Your task to perform on an android device: Open CNN.com Image 0: 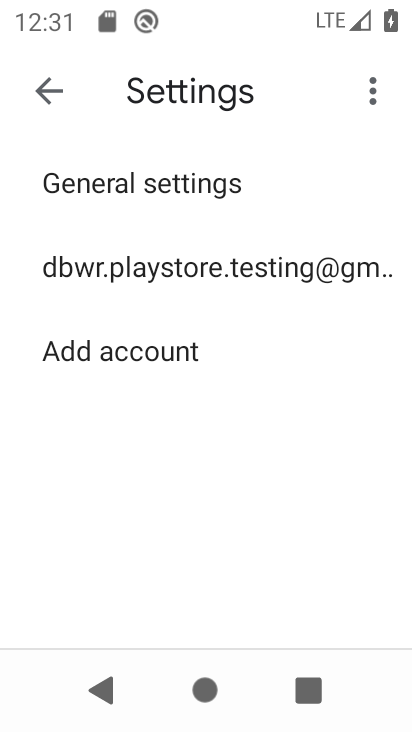
Step 0: press back button
Your task to perform on an android device: Open CNN.com Image 1: 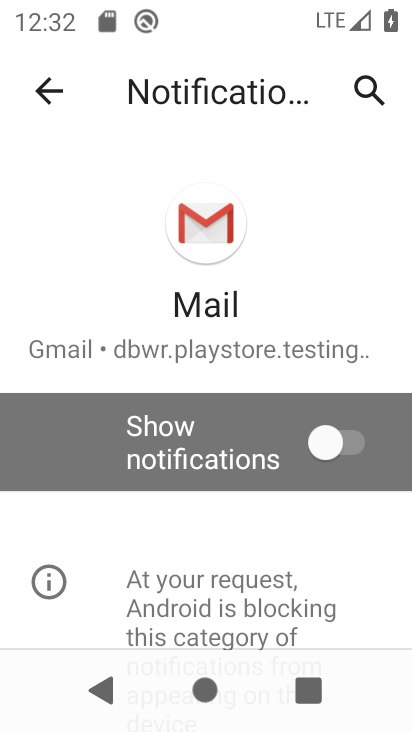
Step 1: press back button
Your task to perform on an android device: Open CNN.com Image 2: 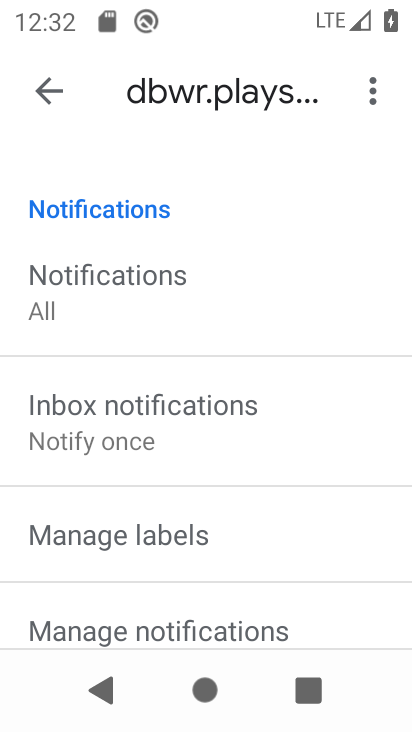
Step 2: press home button
Your task to perform on an android device: Open CNN.com Image 3: 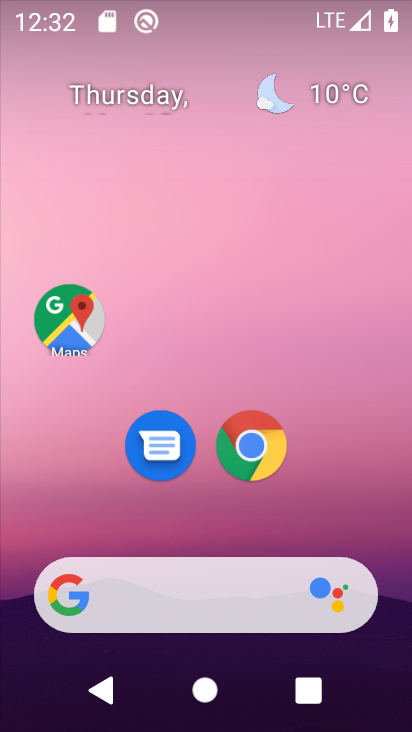
Step 3: click (228, 458)
Your task to perform on an android device: Open CNN.com Image 4: 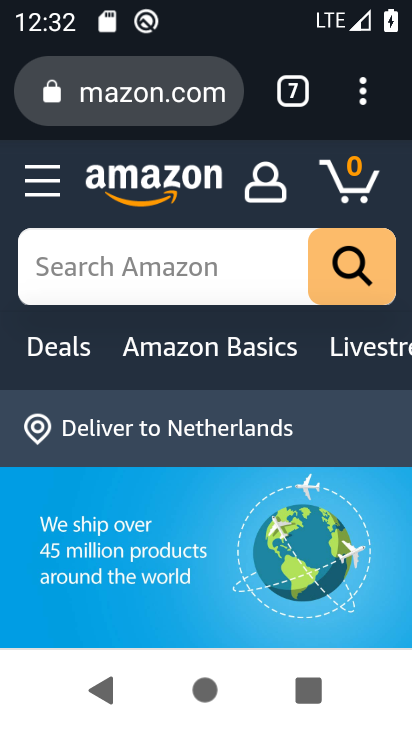
Step 4: click (296, 88)
Your task to perform on an android device: Open CNN.com Image 5: 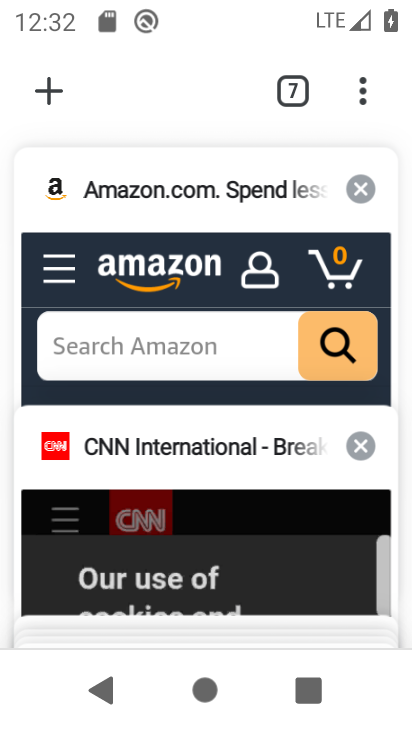
Step 5: click (53, 87)
Your task to perform on an android device: Open CNN.com Image 6: 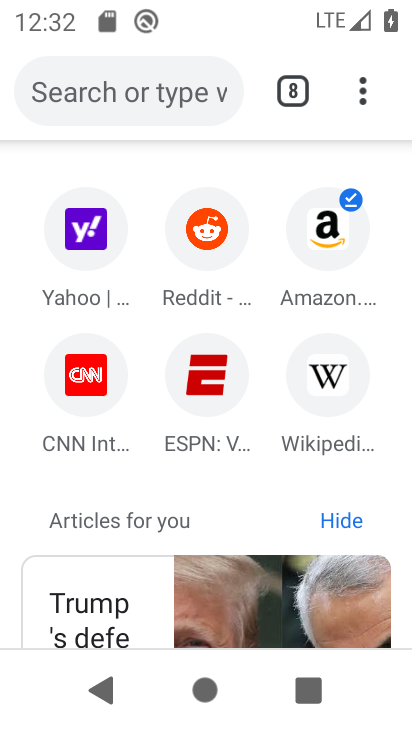
Step 6: click (95, 395)
Your task to perform on an android device: Open CNN.com Image 7: 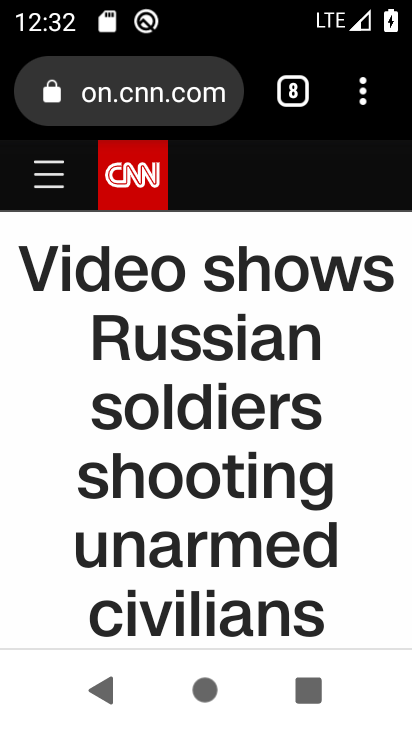
Step 7: task complete